Your task to perform on an android device: move a message to another label in the gmail app Image 0: 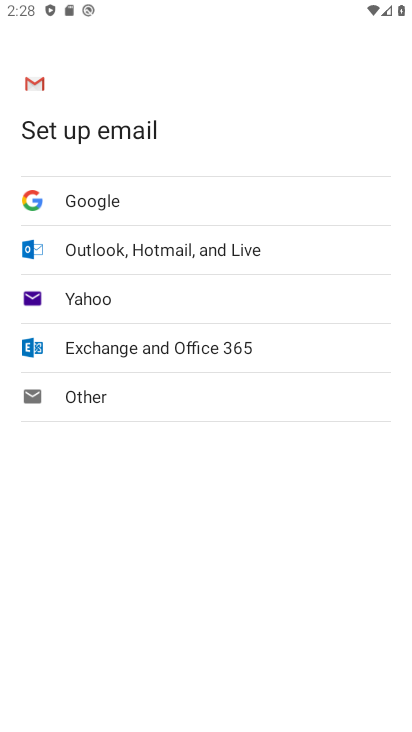
Step 0: press back button
Your task to perform on an android device: move a message to another label in the gmail app Image 1: 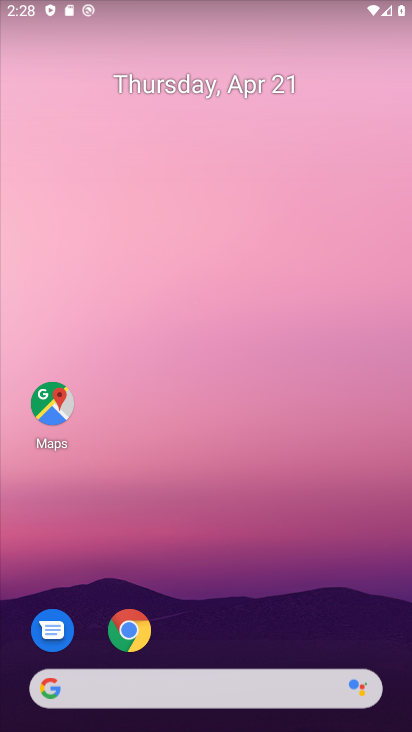
Step 1: drag from (175, 665) to (288, 88)
Your task to perform on an android device: move a message to another label in the gmail app Image 2: 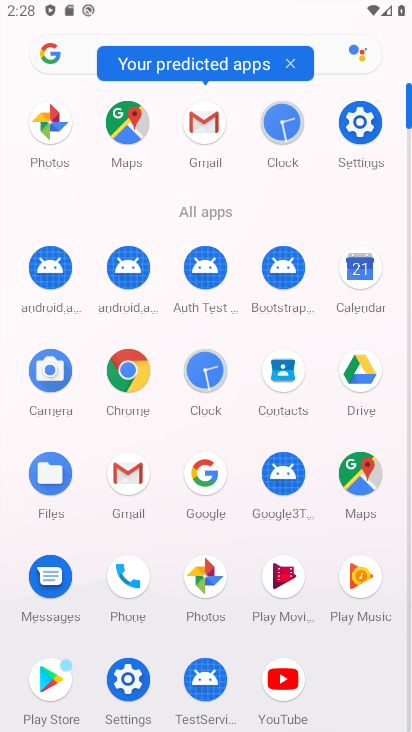
Step 2: click (209, 124)
Your task to perform on an android device: move a message to another label in the gmail app Image 3: 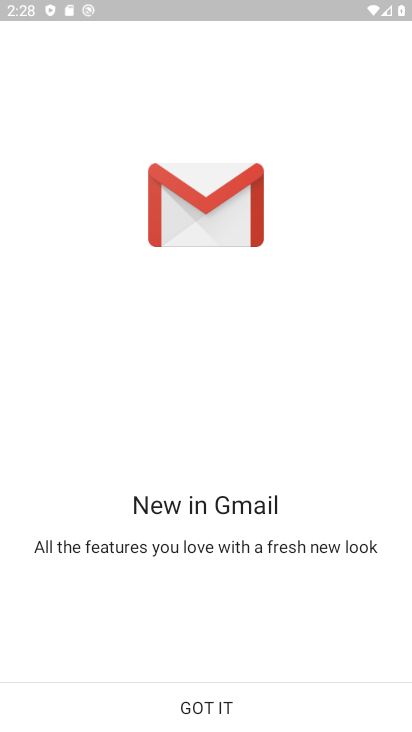
Step 3: click (197, 712)
Your task to perform on an android device: move a message to another label in the gmail app Image 4: 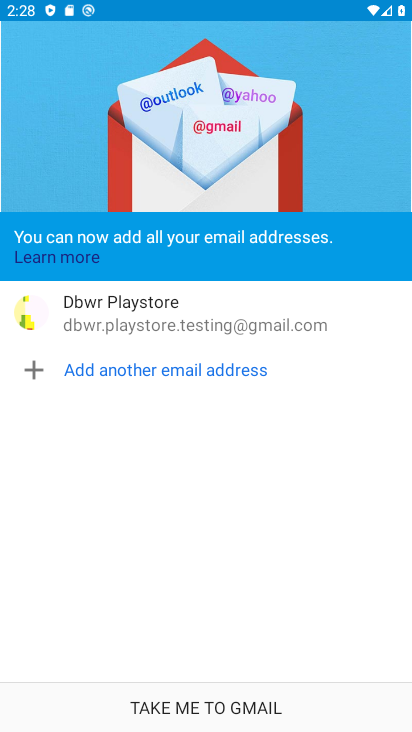
Step 4: click (214, 709)
Your task to perform on an android device: move a message to another label in the gmail app Image 5: 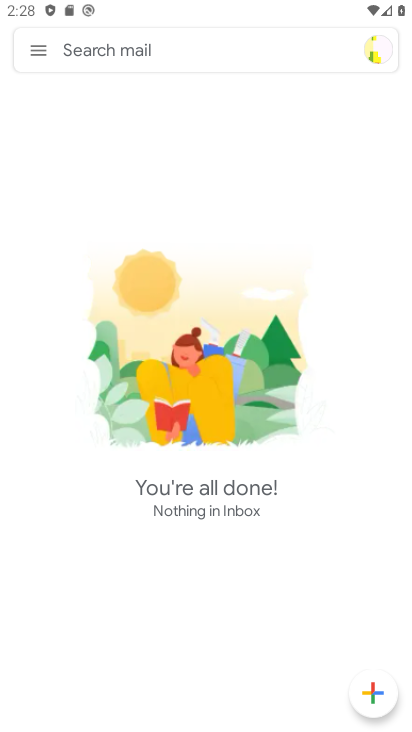
Step 5: click (41, 53)
Your task to perform on an android device: move a message to another label in the gmail app Image 6: 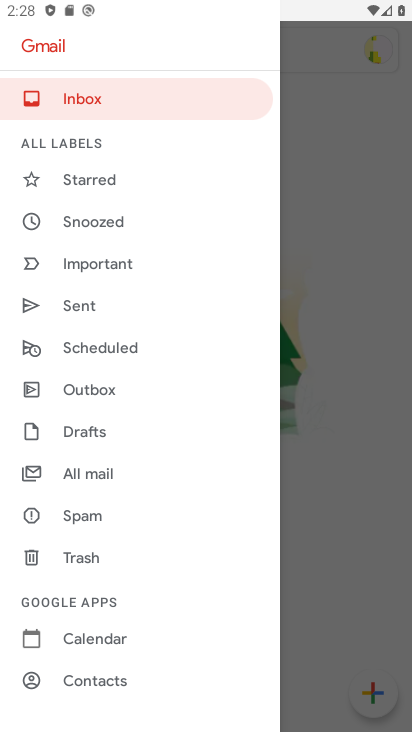
Step 6: click (119, 467)
Your task to perform on an android device: move a message to another label in the gmail app Image 7: 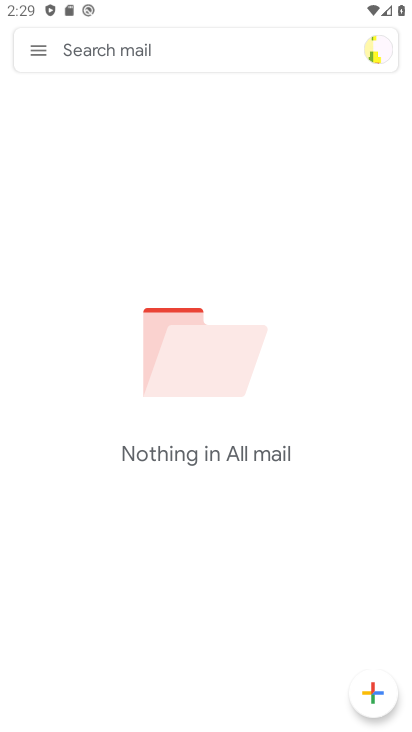
Step 7: task complete